Your task to perform on an android device: turn off data saver in the chrome app Image 0: 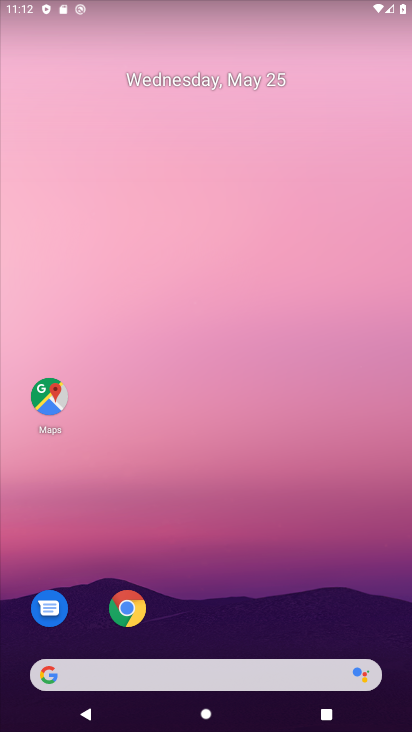
Step 0: click (145, 610)
Your task to perform on an android device: turn off data saver in the chrome app Image 1: 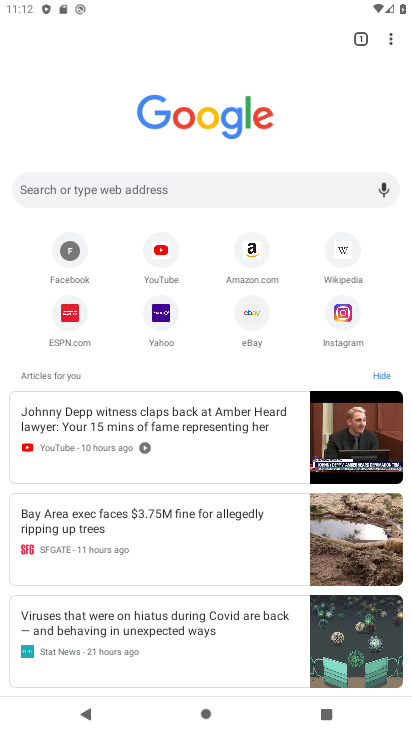
Step 1: click (398, 29)
Your task to perform on an android device: turn off data saver in the chrome app Image 2: 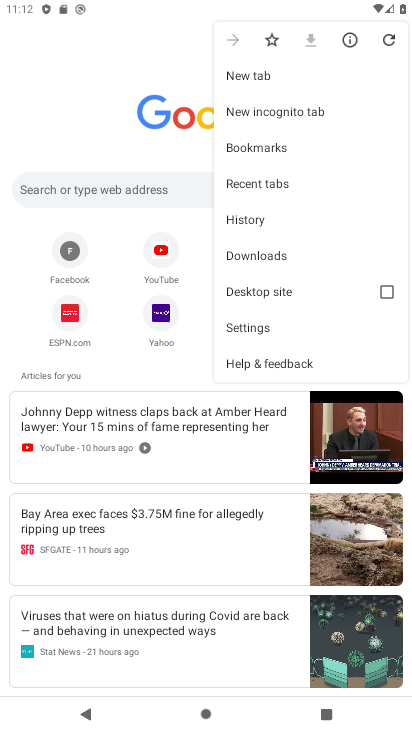
Step 2: click (396, 42)
Your task to perform on an android device: turn off data saver in the chrome app Image 3: 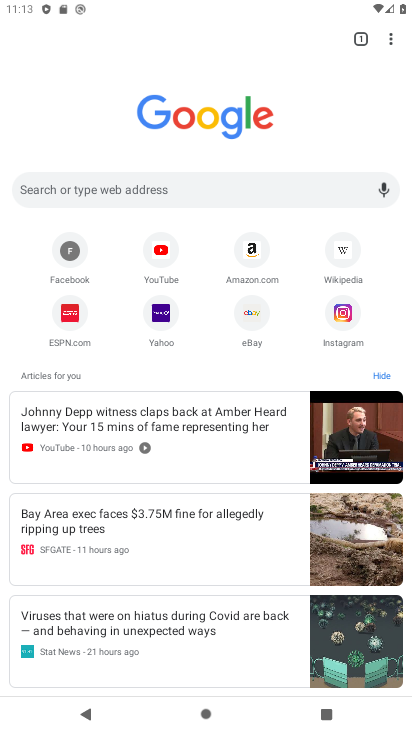
Step 3: click (392, 37)
Your task to perform on an android device: turn off data saver in the chrome app Image 4: 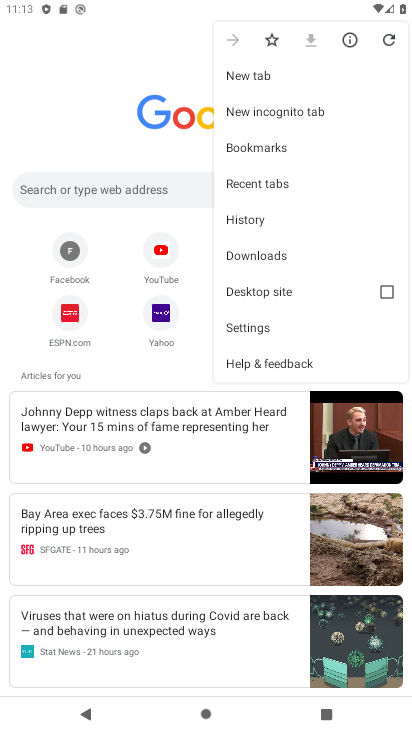
Step 4: click (243, 321)
Your task to perform on an android device: turn off data saver in the chrome app Image 5: 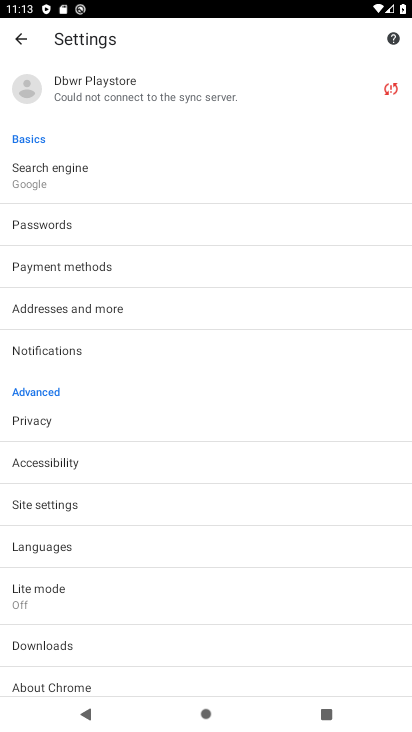
Step 5: click (53, 615)
Your task to perform on an android device: turn off data saver in the chrome app Image 6: 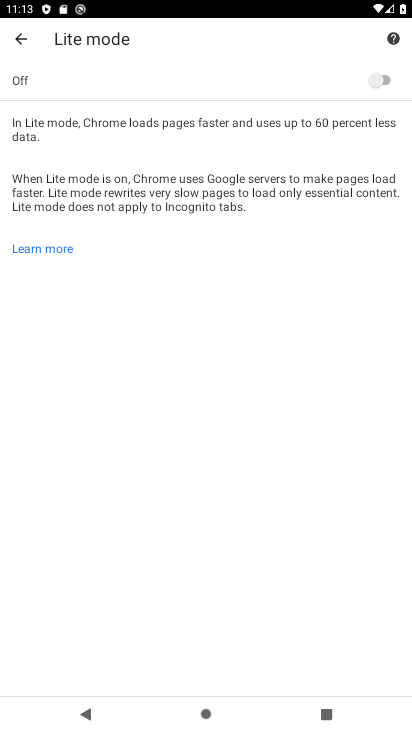
Step 6: task complete